Your task to perform on an android device: change the upload size in google photos Image 0: 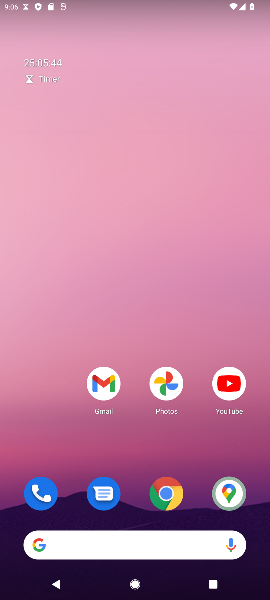
Step 0: drag from (58, 434) to (12, 348)
Your task to perform on an android device: change the upload size in google photos Image 1: 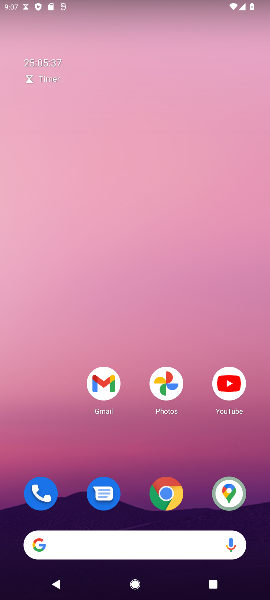
Step 1: click (32, 470)
Your task to perform on an android device: change the upload size in google photos Image 2: 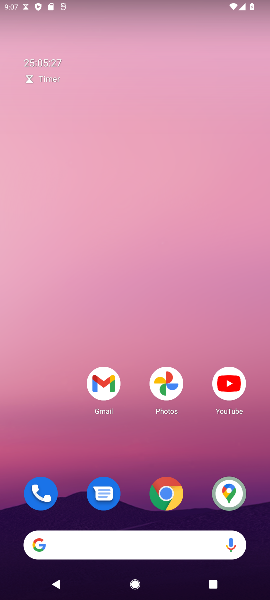
Step 2: drag from (31, 452) to (35, 78)
Your task to perform on an android device: change the upload size in google photos Image 3: 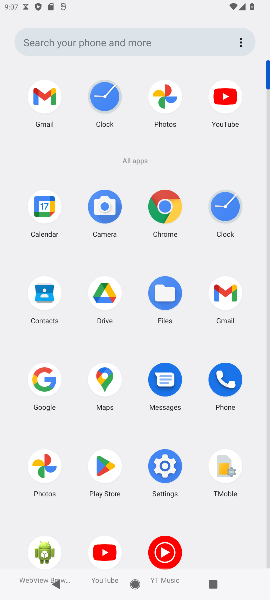
Step 3: click (159, 100)
Your task to perform on an android device: change the upload size in google photos Image 4: 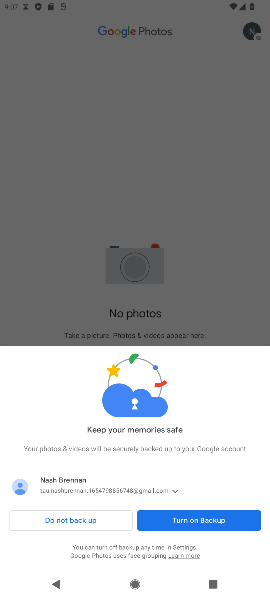
Step 4: click (187, 513)
Your task to perform on an android device: change the upload size in google photos Image 5: 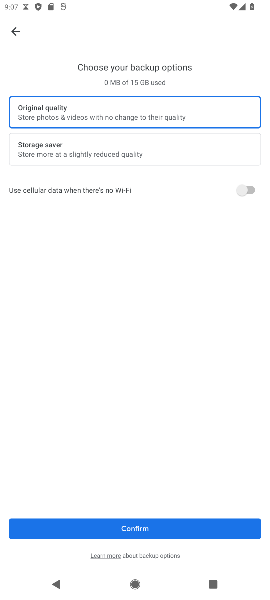
Step 5: click (105, 523)
Your task to perform on an android device: change the upload size in google photos Image 6: 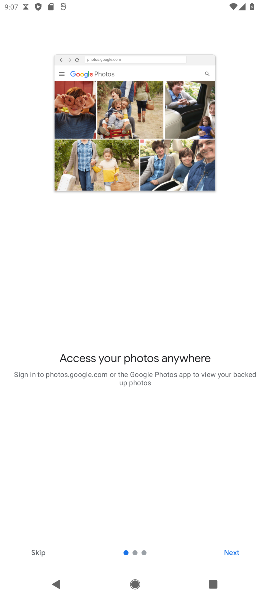
Step 6: click (236, 555)
Your task to perform on an android device: change the upload size in google photos Image 7: 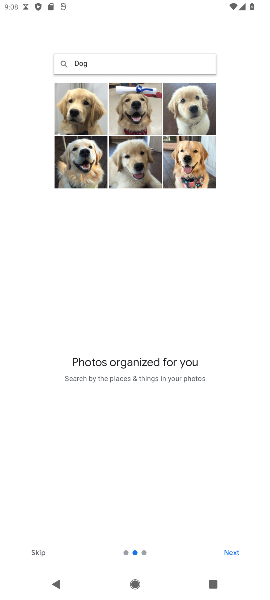
Step 7: click (226, 554)
Your task to perform on an android device: change the upload size in google photos Image 8: 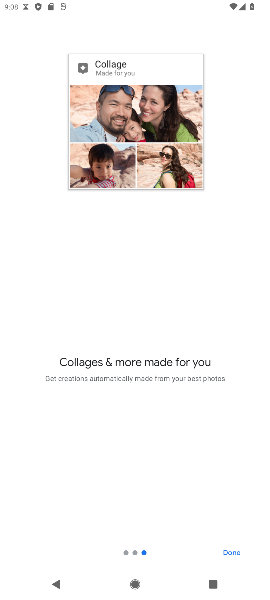
Step 8: click (227, 548)
Your task to perform on an android device: change the upload size in google photos Image 9: 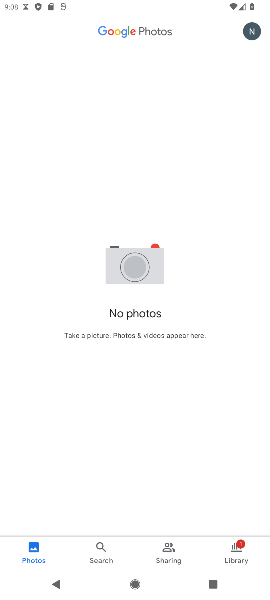
Step 9: click (254, 28)
Your task to perform on an android device: change the upload size in google photos Image 10: 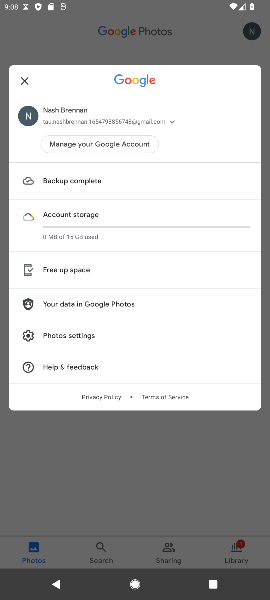
Step 10: click (58, 332)
Your task to perform on an android device: change the upload size in google photos Image 11: 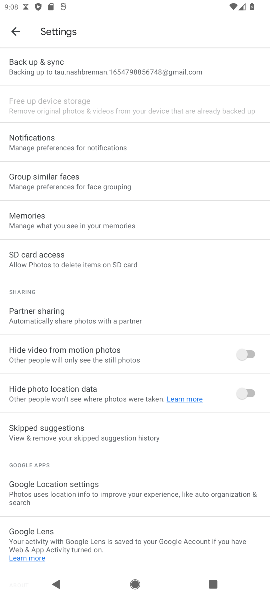
Step 11: click (56, 59)
Your task to perform on an android device: change the upload size in google photos Image 12: 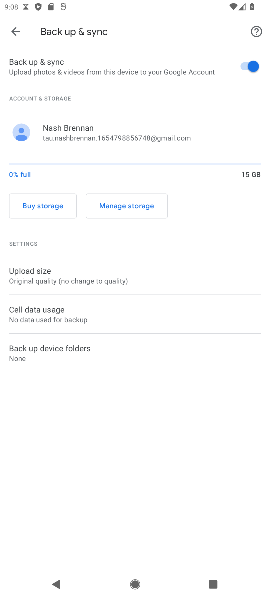
Step 12: click (64, 280)
Your task to perform on an android device: change the upload size in google photos Image 13: 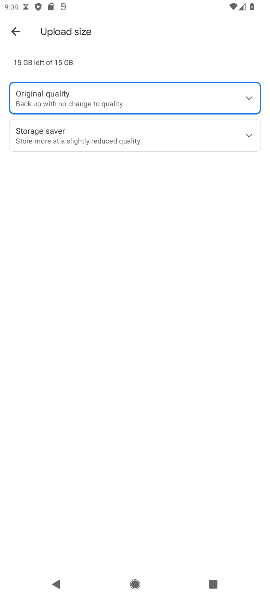
Step 13: click (36, 136)
Your task to perform on an android device: change the upload size in google photos Image 14: 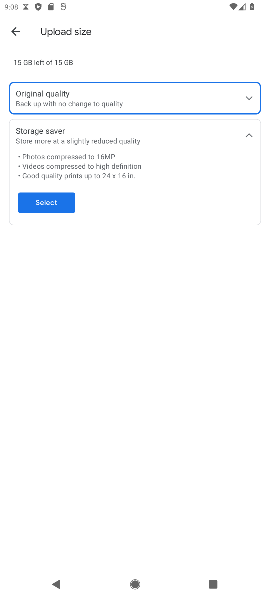
Step 14: task complete